Your task to perform on an android device: turn on bluetooth scan Image 0: 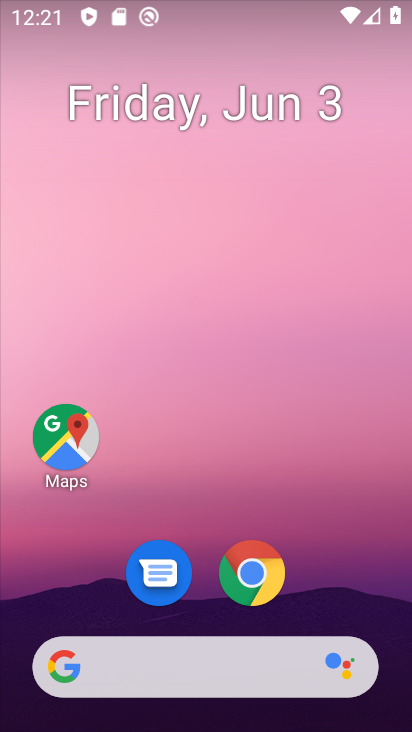
Step 0: task complete